Your task to perform on an android device: What's on my calendar today? Image 0: 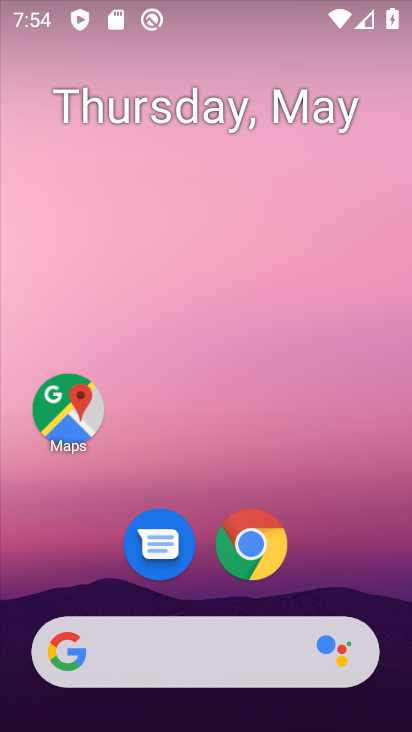
Step 0: drag from (405, 710) to (298, 8)
Your task to perform on an android device: What's on my calendar today? Image 1: 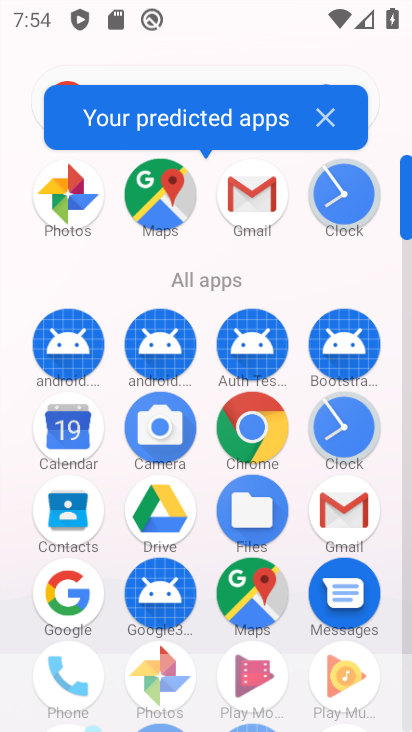
Step 1: click (405, 723)
Your task to perform on an android device: What's on my calendar today? Image 2: 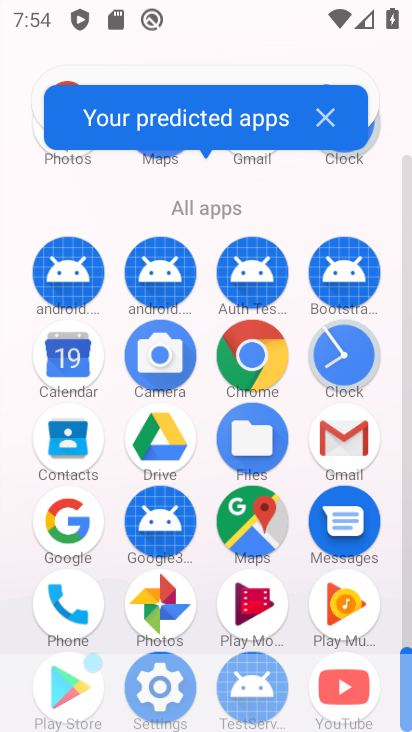
Step 2: click (68, 371)
Your task to perform on an android device: What's on my calendar today? Image 3: 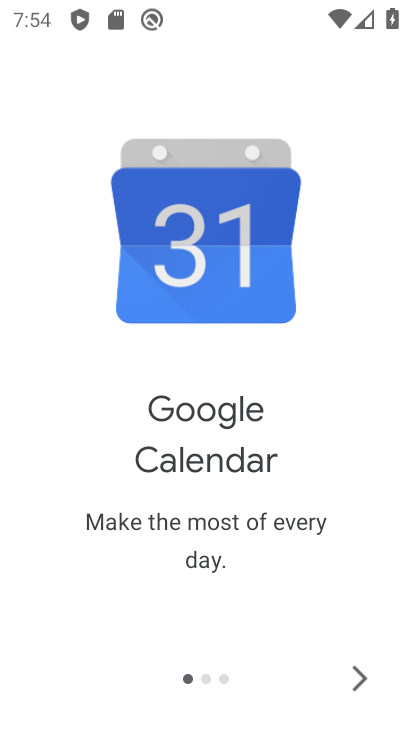
Step 3: click (356, 678)
Your task to perform on an android device: What's on my calendar today? Image 4: 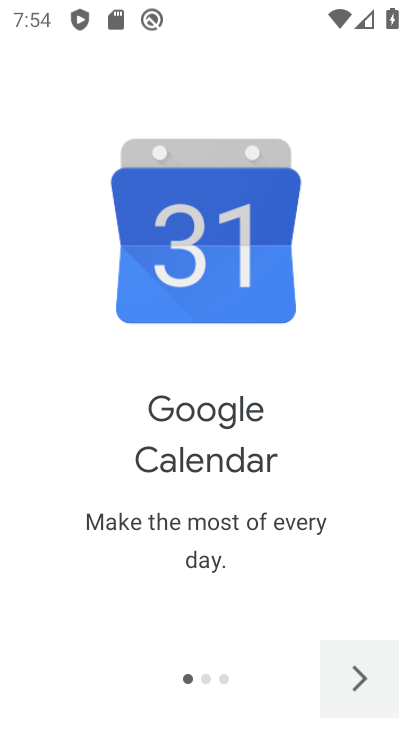
Step 4: click (356, 678)
Your task to perform on an android device: What's on my calendar today? Image 5: 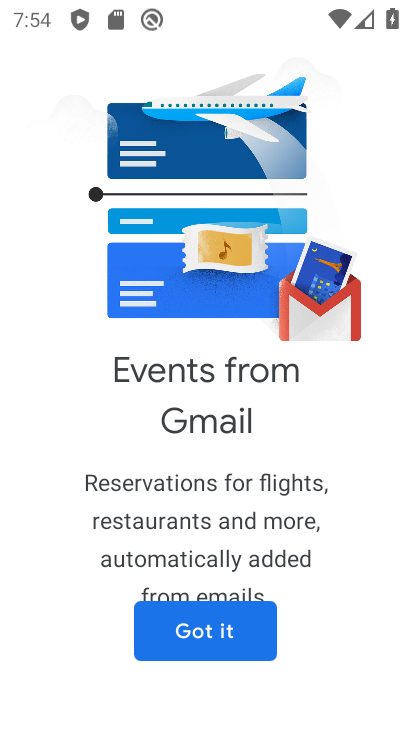
Step 5: click (210, 653)
Your task to perform on an android device: What's on my calendar today? Image 6: 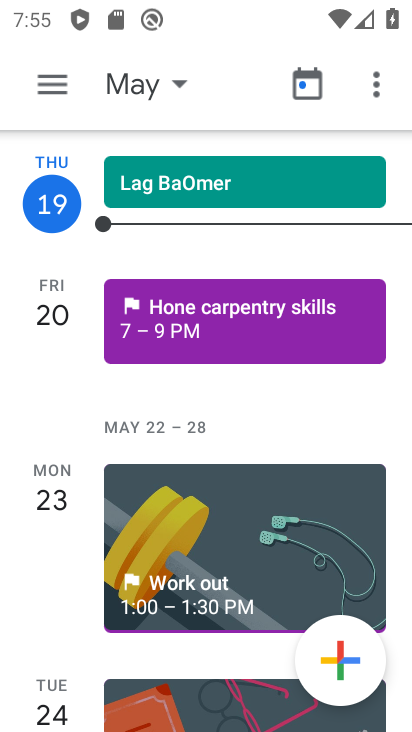
Step 6: click (183, 84)
Your task to perform on an android device: What's on my calendar today? Image 7: 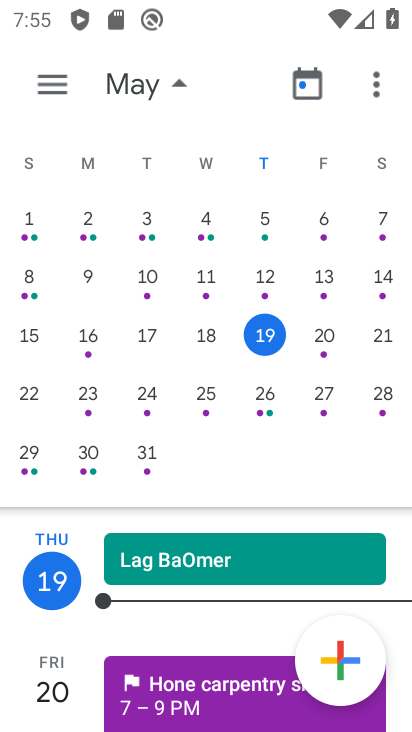
Step 7: click (183, 86)
Your task to perform on an android device: What's on my calendar today? Image 8: 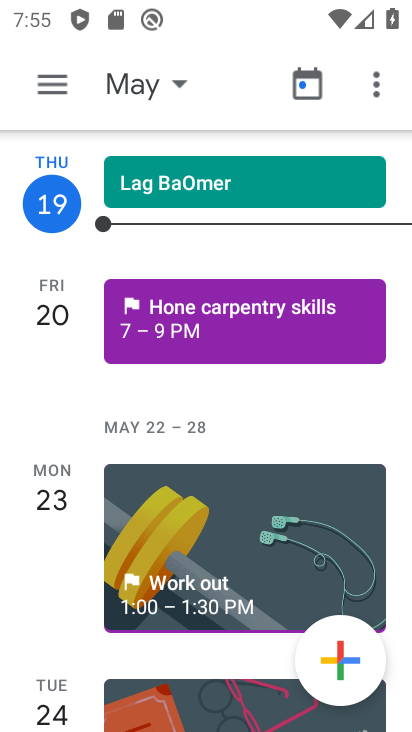
Step 8: task complete